Your task to perform on an android device: toggle airplane mode Image 0: 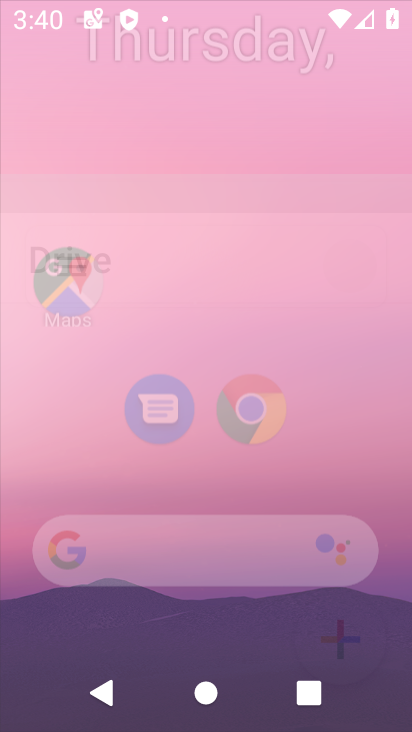
Step 0: press home button
Your task to perform on an android device: toggle airplane mode Image 1: 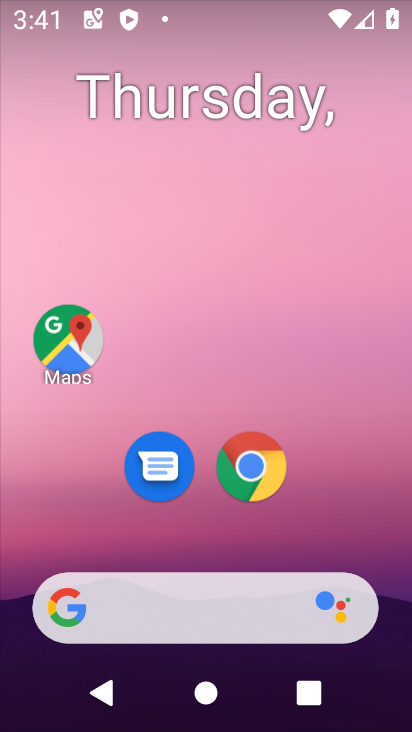
Step 1: drag from (349, 612) to (352, 65)
Your task to perform on an android device: toggle airplane mode Image 2: 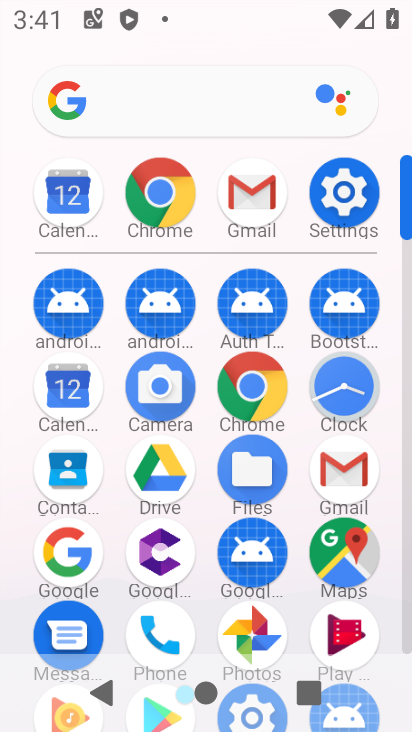
Step 2: click (354, 177)
Your task to perform on an android device: toggle airplane mode Image 3: 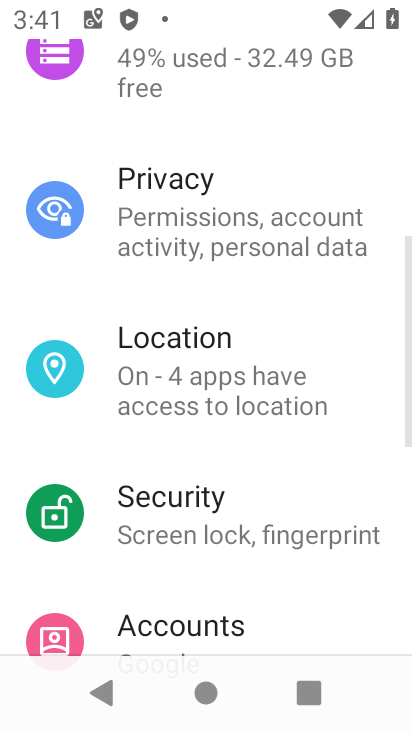
Step 3: drag from (302, 173) to (324, 725)
Your task to perform on an android device: toggle airplane mode Image 4: 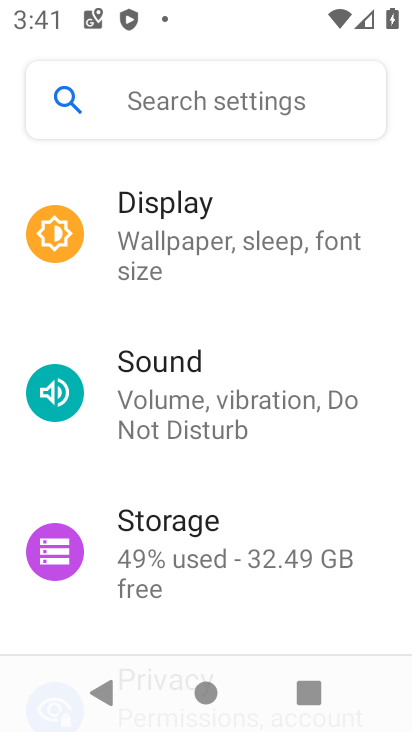
Step 4: drag from (258, 268) to (347, 723)
Your task to perform on an android device: toggle airplane mode Image 5: 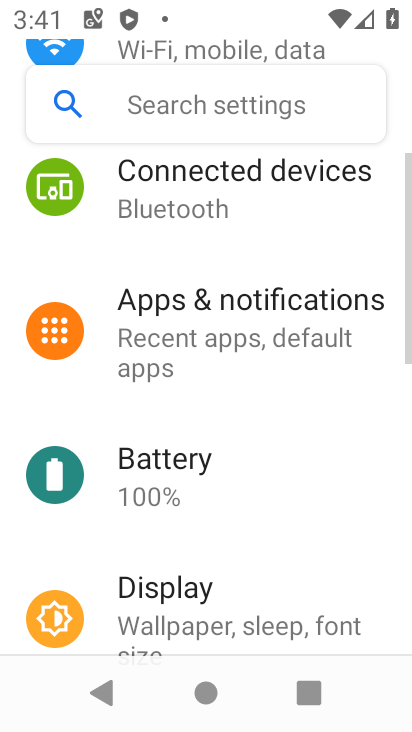
Step 5: drag from (222, 291) to (235, 710)
Your task to perform on an android device: toggle airplane mode Image 6: 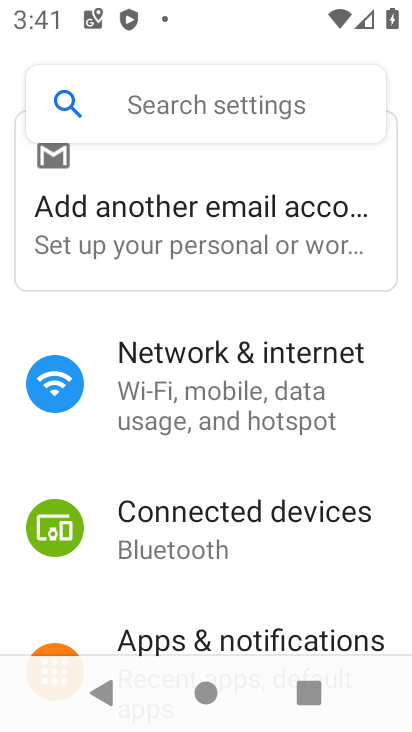
Step 6: click (274, 380)
Your task to perform on an android device: toggle airplane mode Image 7: 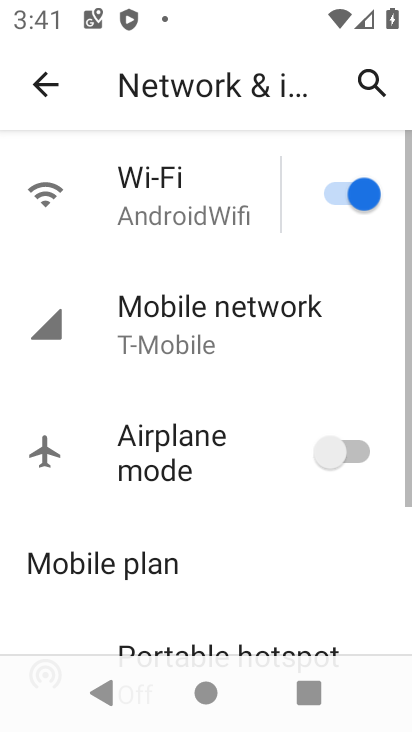
Step 7: drag from (288, 516) to (290, 335)
Your task to perform on an android device: toggle airplane mode Image 8: 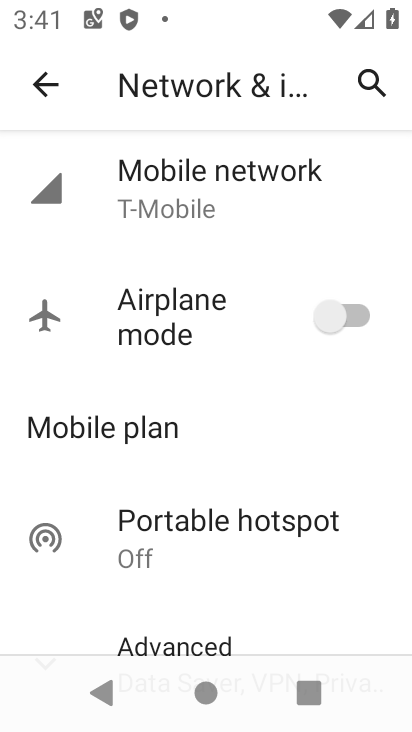
Step 8: click (356, 306)
Your task to perform on an android device: toggle airplane mode Image 9: 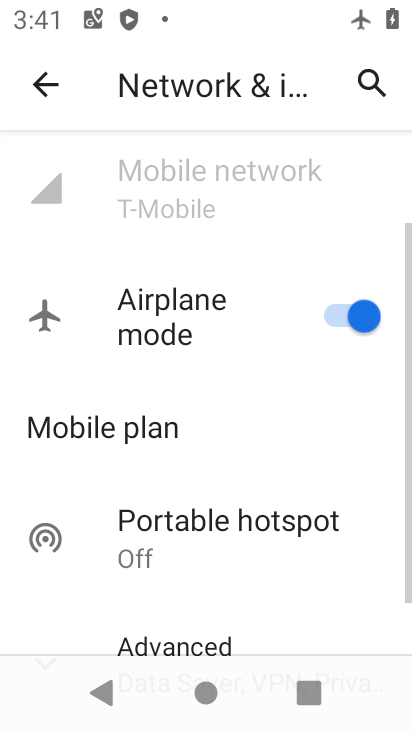
Step 9: task complete